Your task to perform on an android device: check data usage Image 0: 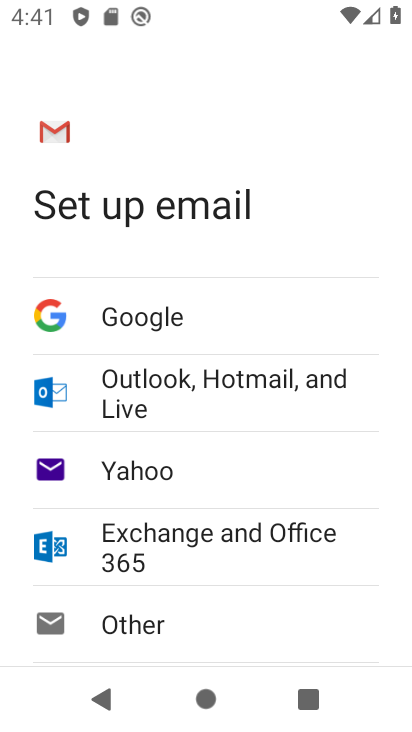
Step 0: press back button
Your task to perform on an android device: check data usage Image 1: 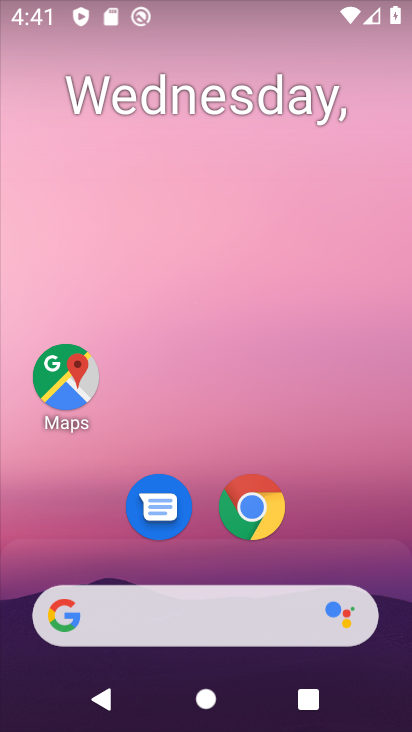
Step 1: drag from (164, 584) to (238, 203)
Your task to perform on an android device: check data usage Image 2: 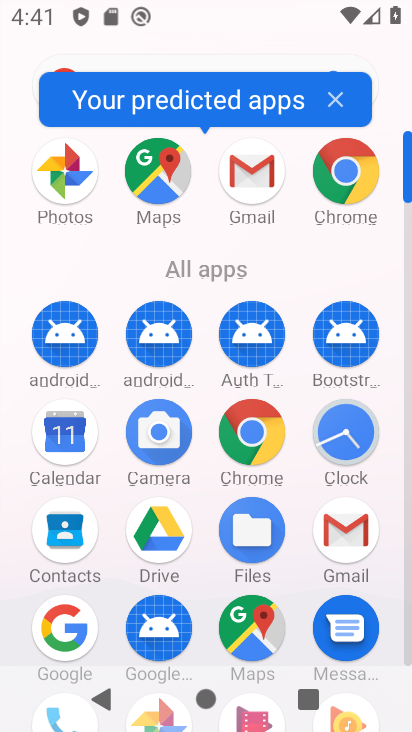
Step 2: drag from (167, 626) to (218, 381)
Your task to perform on an android device: check data usage Image 3: 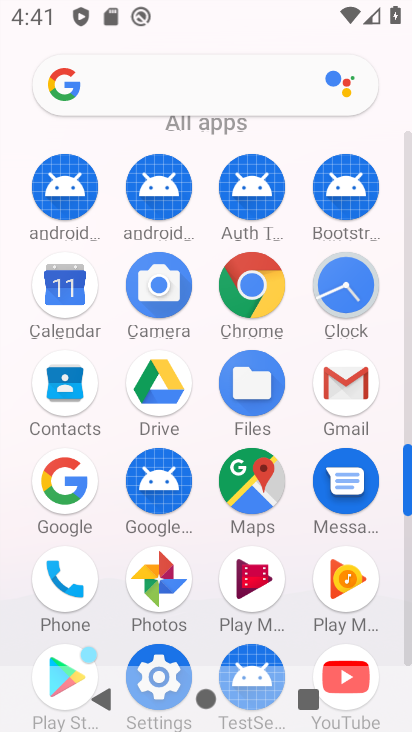
Step 3: click (176, 661)
Your task to perform on an android device: check data usage Image 4: 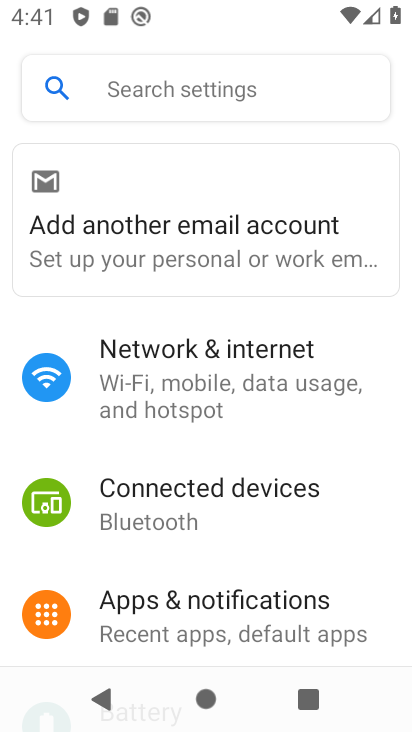
Step 4: click (195, 366)
Your task to perform on an android device: check data usage Image 5: 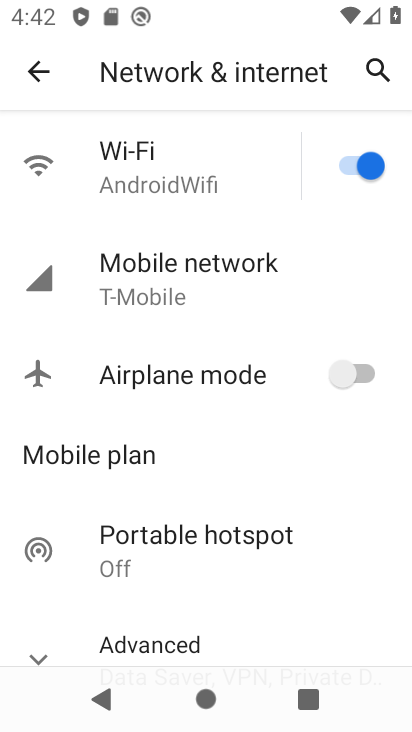
Step 5: click (180, 268)
Your task to perform on an android device: check data usage Image 6: 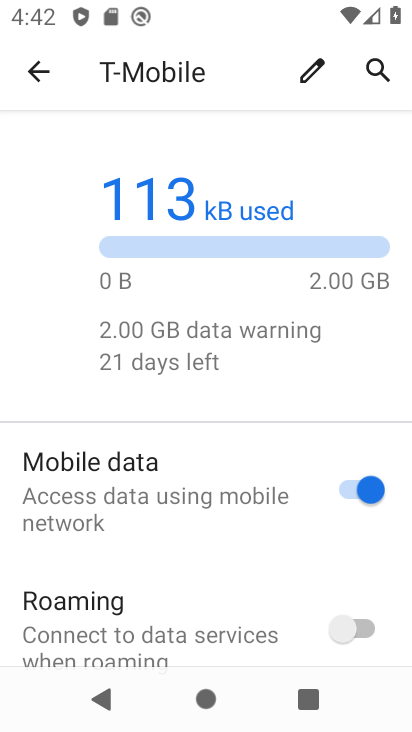
Step 6: drag from (193, 425) to (221, 287)
Your task to perform on an android device: check data usage Image 7: 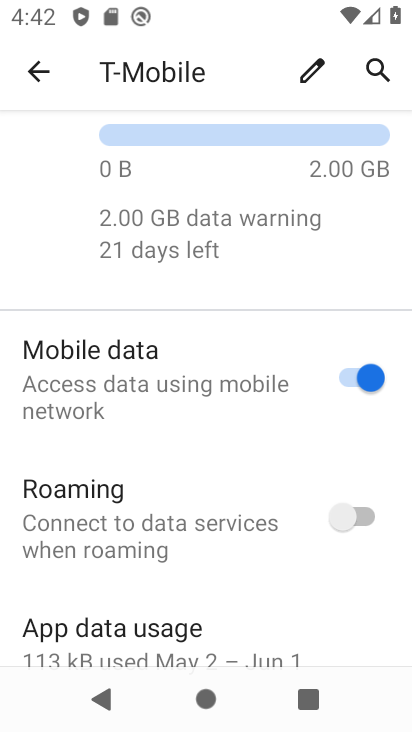
Step 7: click (143, 632)
Your task to perform on an android device: check data usage Image 8: 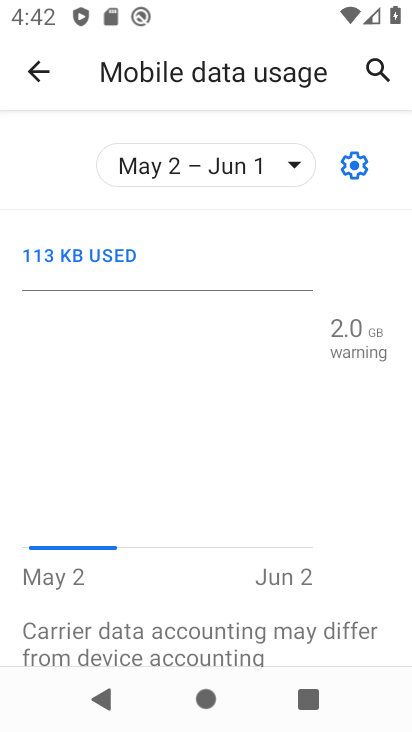
Step 8: task complete